Your task to perform on an android device: Search for sushi restaurants on Maps Image 0: 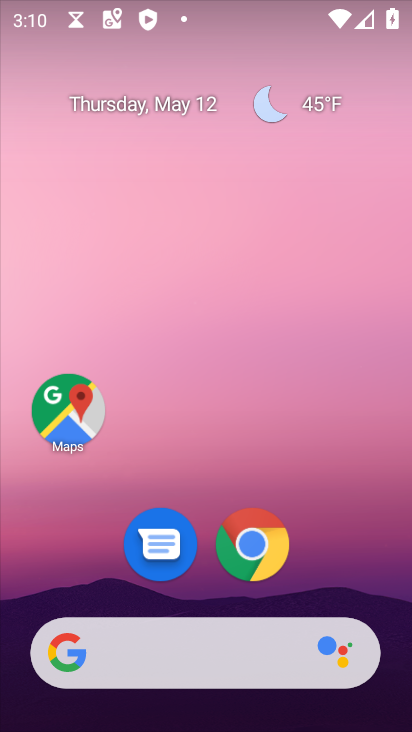
Step 0: click (69, 410)
Your task to perform on an android device: Search for sushi restaurants on Maps Image 1: 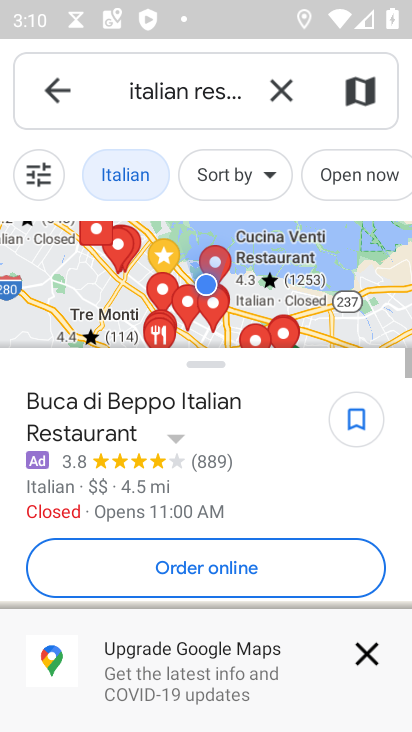
Step 1: click (268, 89)
Your task to perform on an android device: Search for sushi restaurants on Maps Image 2: 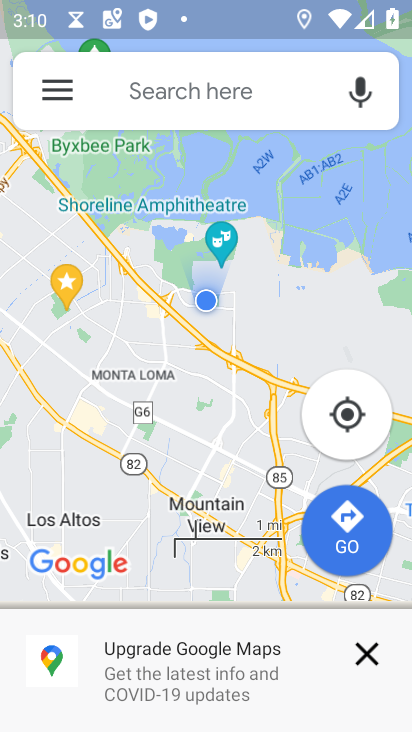
Step 2: click (256, 96)
Your task to perform on an android device: Search for sushi restaurants on Maps Image 3: 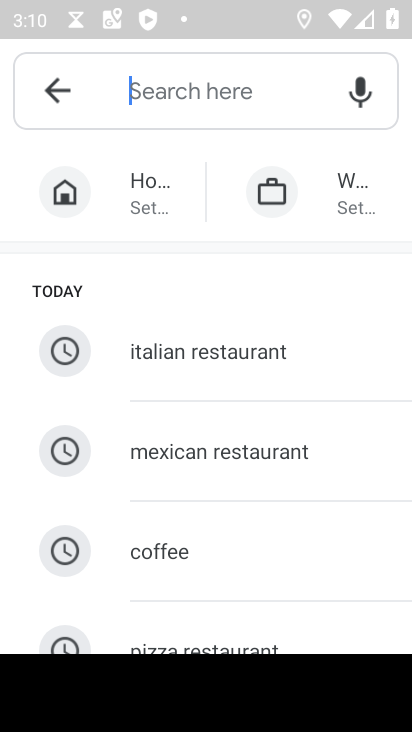
Step 3: type "sushi restaurants"
Your task to perform on an android device: Search for sushi restaurants on Maps Image 4: 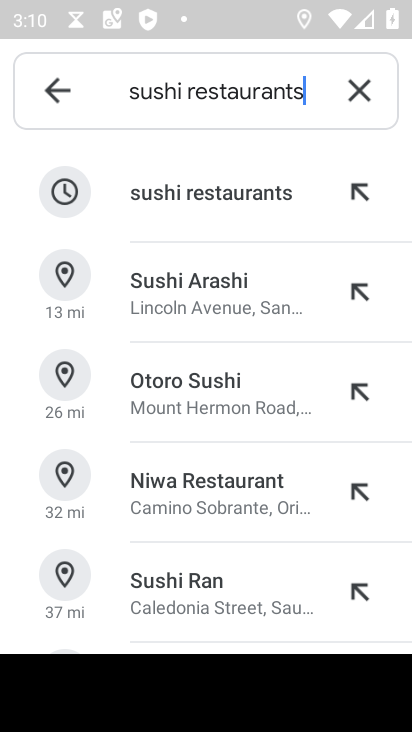
Step 4: click (137, 191)
Your task to perform on an android device: Search for sushi restaurants on Maps Image 5: 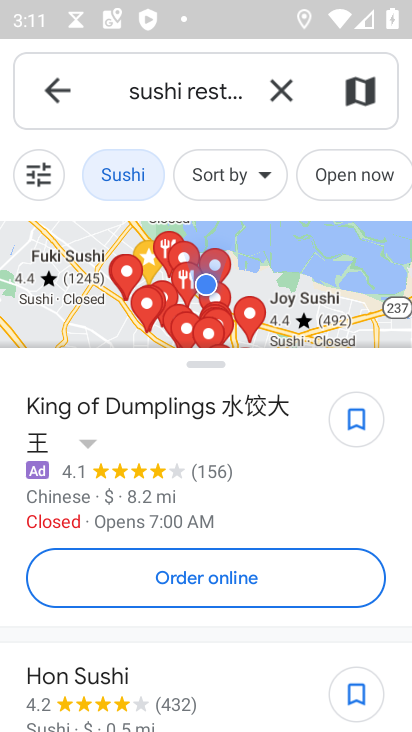
Step 5: task complete